Your task to perform on an android device: Show the shopping cart on costco. Add "bose soundlink mini" to the cart on costco Image 0: 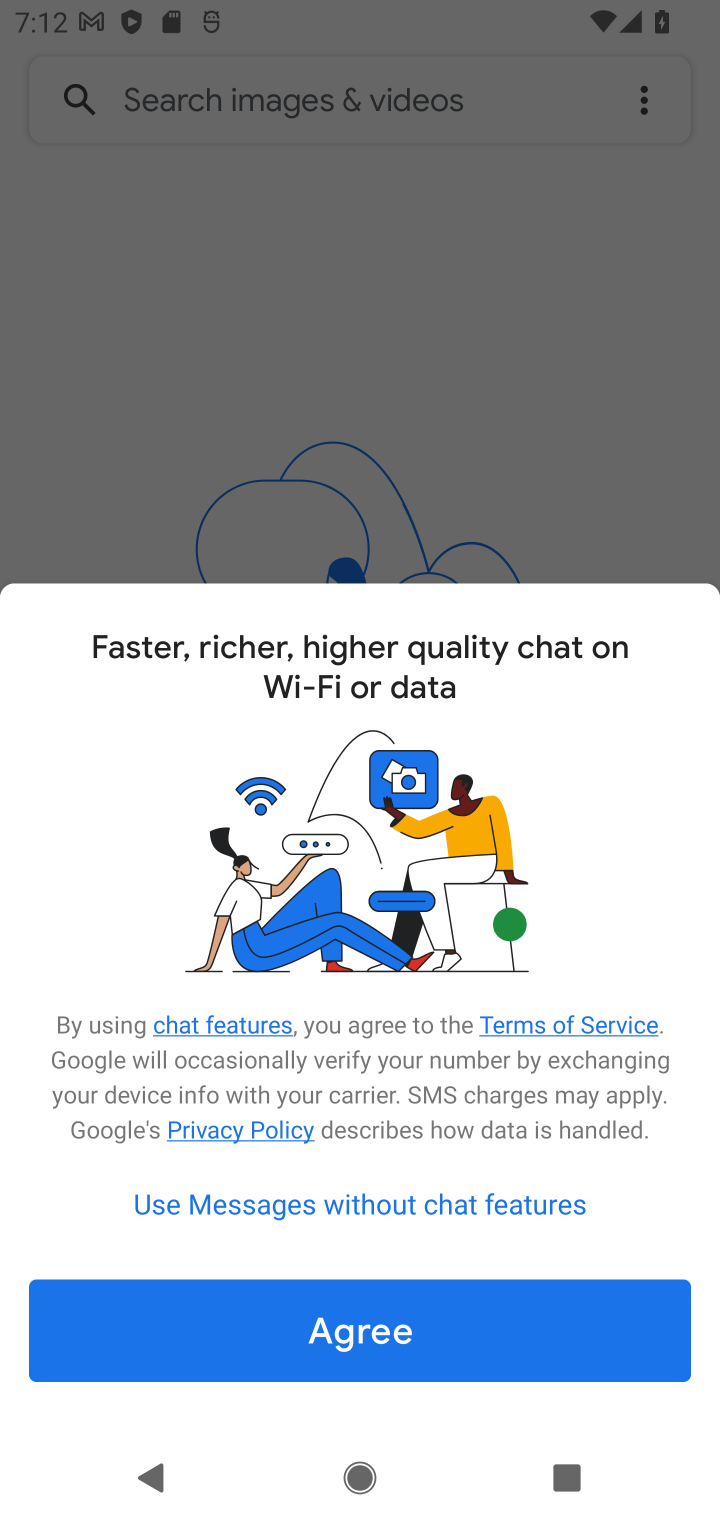
Step 0: press home button
Your task to perform on an android device: Show the shopping cart on costco. Add "bose soundlink mini" to the cart on costco Image 1: 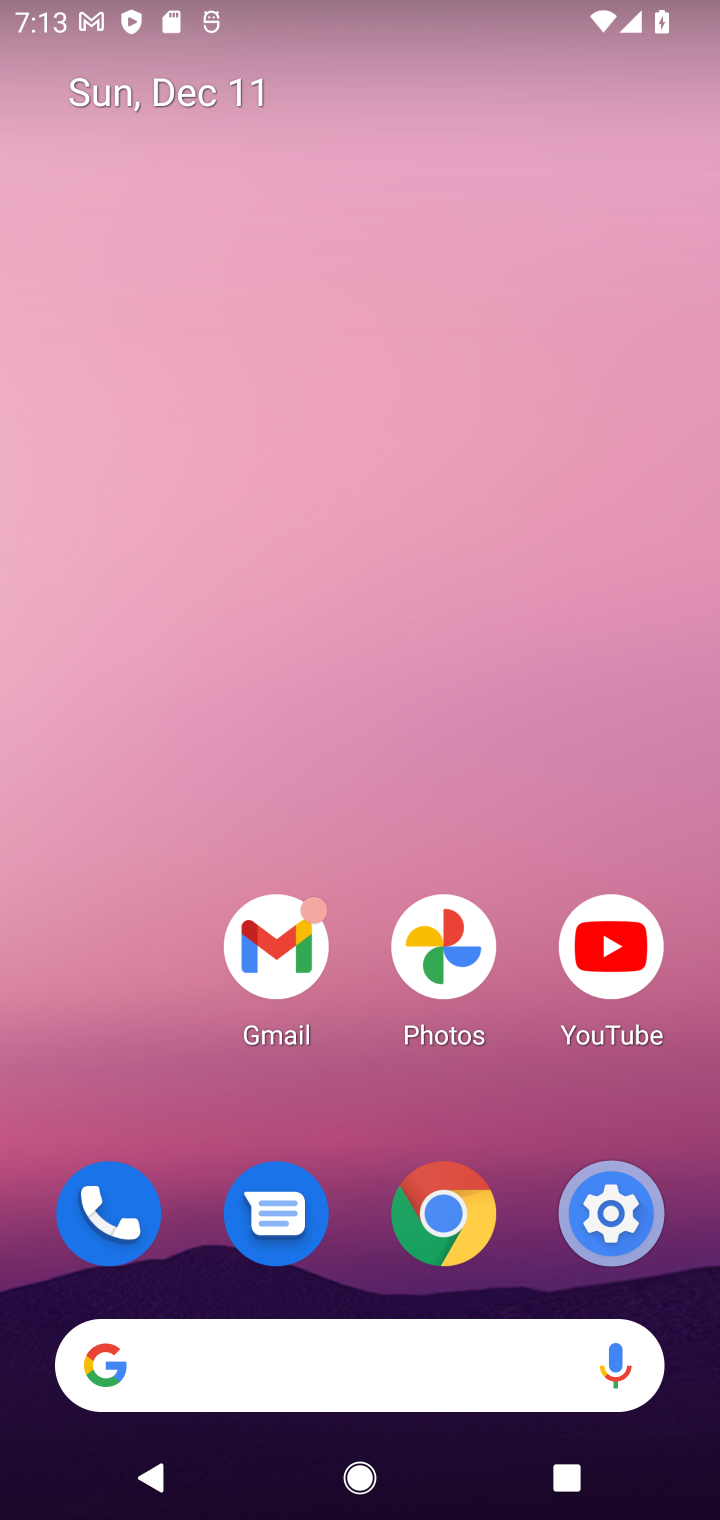
Step 1: click (436, 1348)
Your task to perform on an android device: Show the shopping cart on costco. Add "bose soundlink mini" to the cart on costco Image 2: 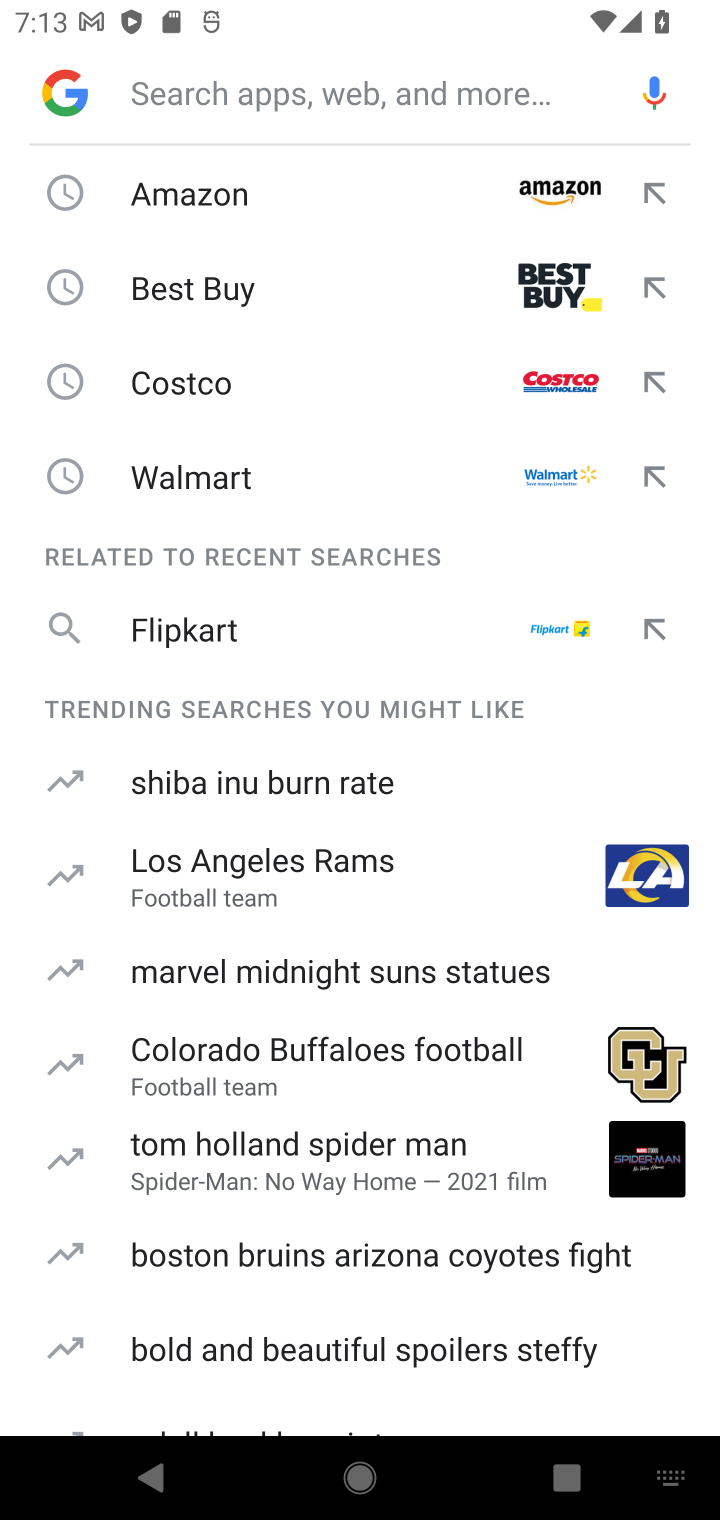
Step 2: click (284, 389)
Your task to perform on an android device: Show the shopping cart on costco. Add "bose soundlink mini" to the cart on costco Image 3: 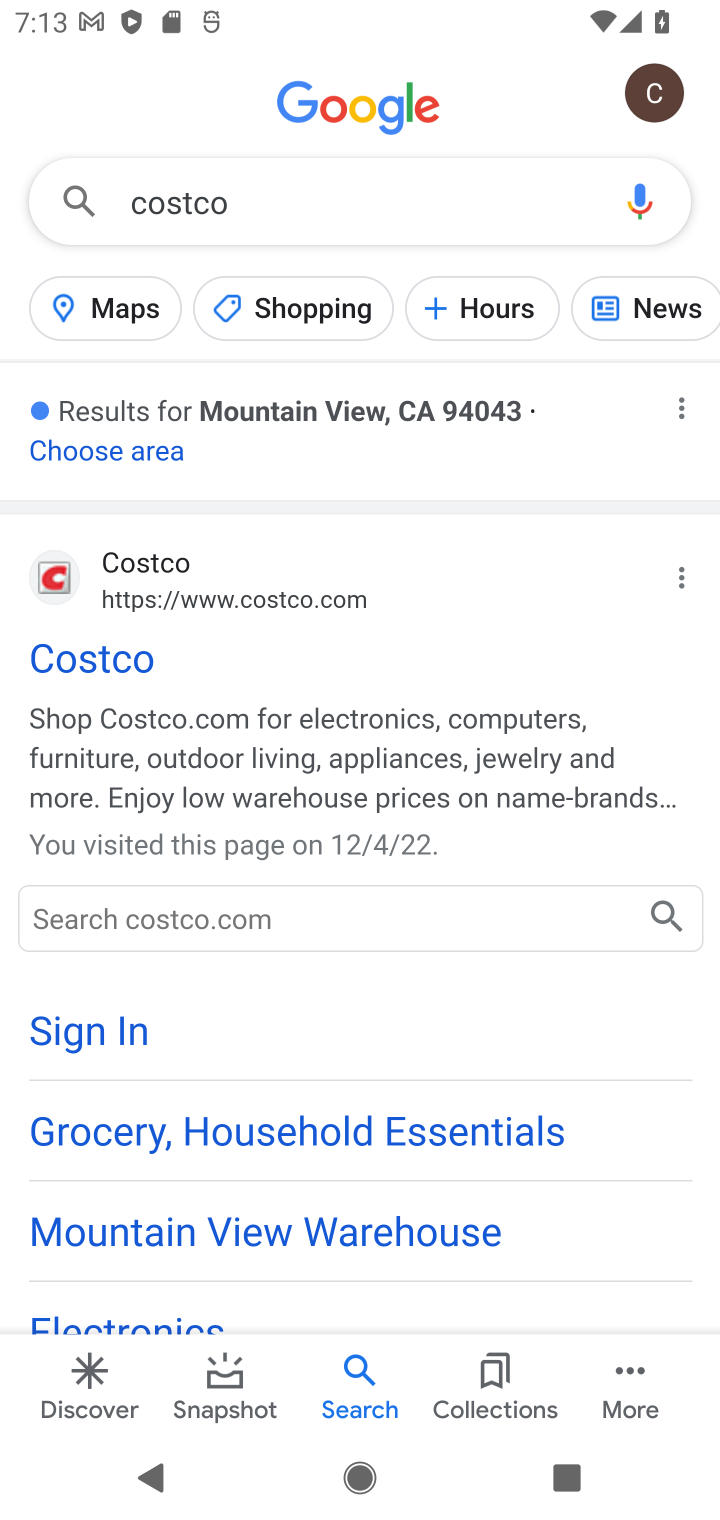
Step 3: click (95, 690)
Your task to perform on an android device: Show the shopping cart on costco. Add "bose soundlink mini" to the cart on costco Image 4: 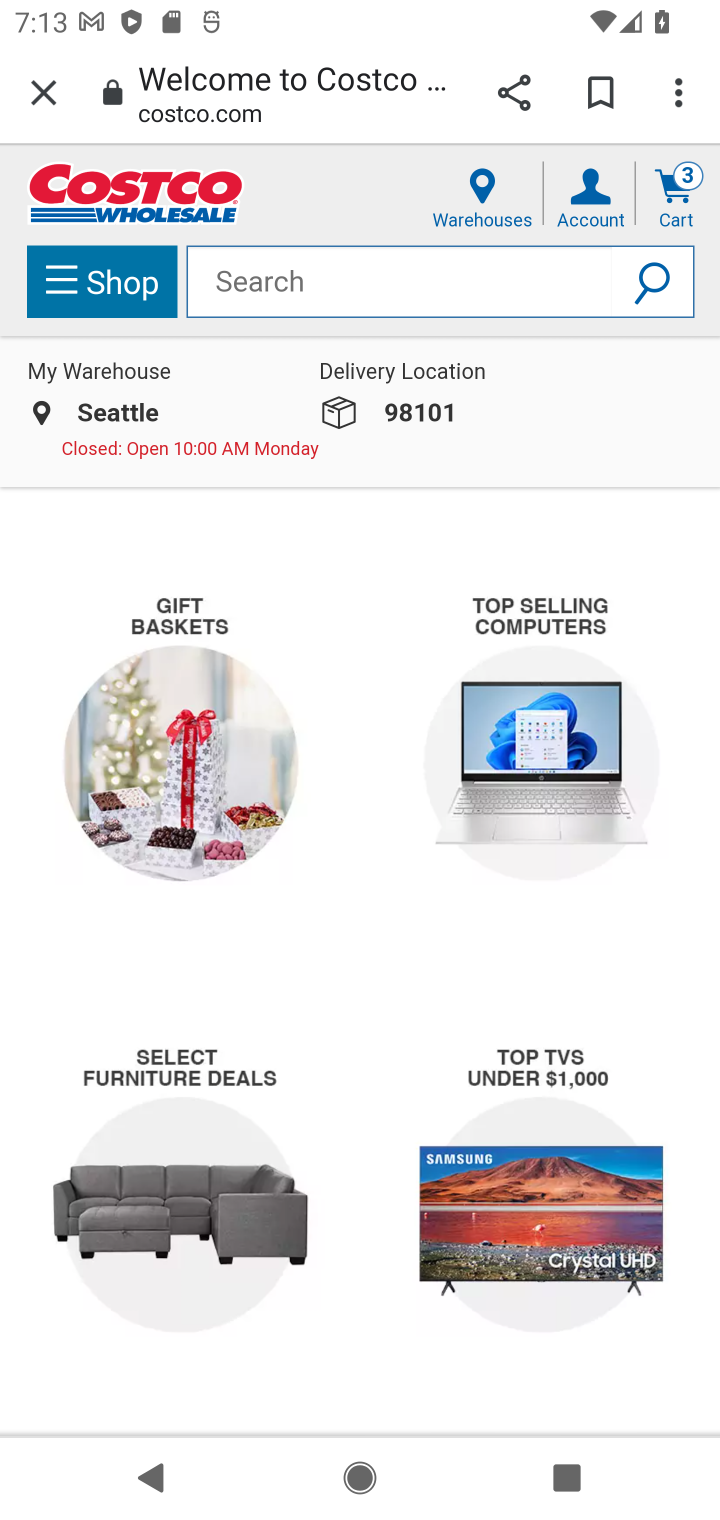
Step 4: click (369, 283)
Your task to perform on an android device: Show the shopping cart on costco. Add "bose soundlink mini" to the cart on costco Image 5: 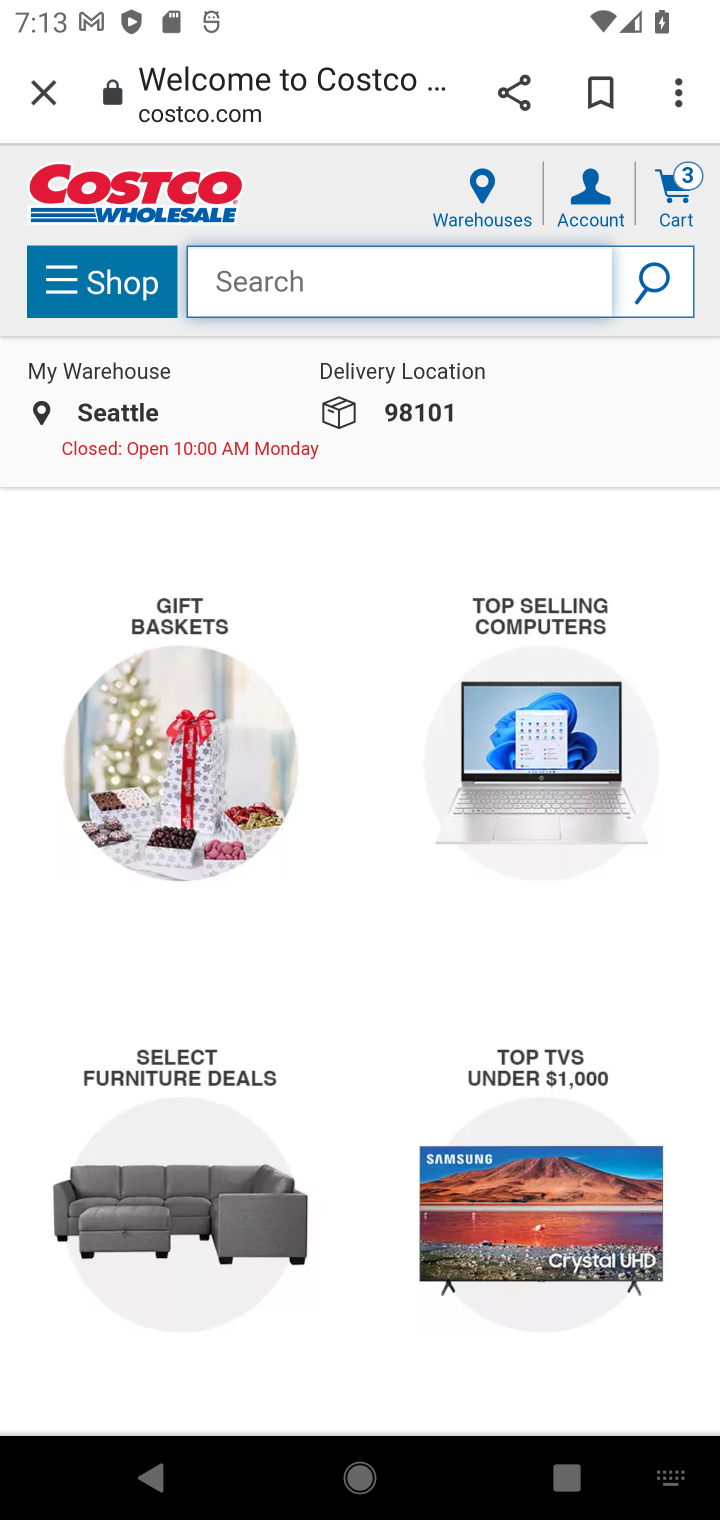
Step 5: type "bose soundlink"
Your task to perform on an android device: Show the shopping cart on costco. Add "bose soundlink mini" to the cart on costco Image 6: 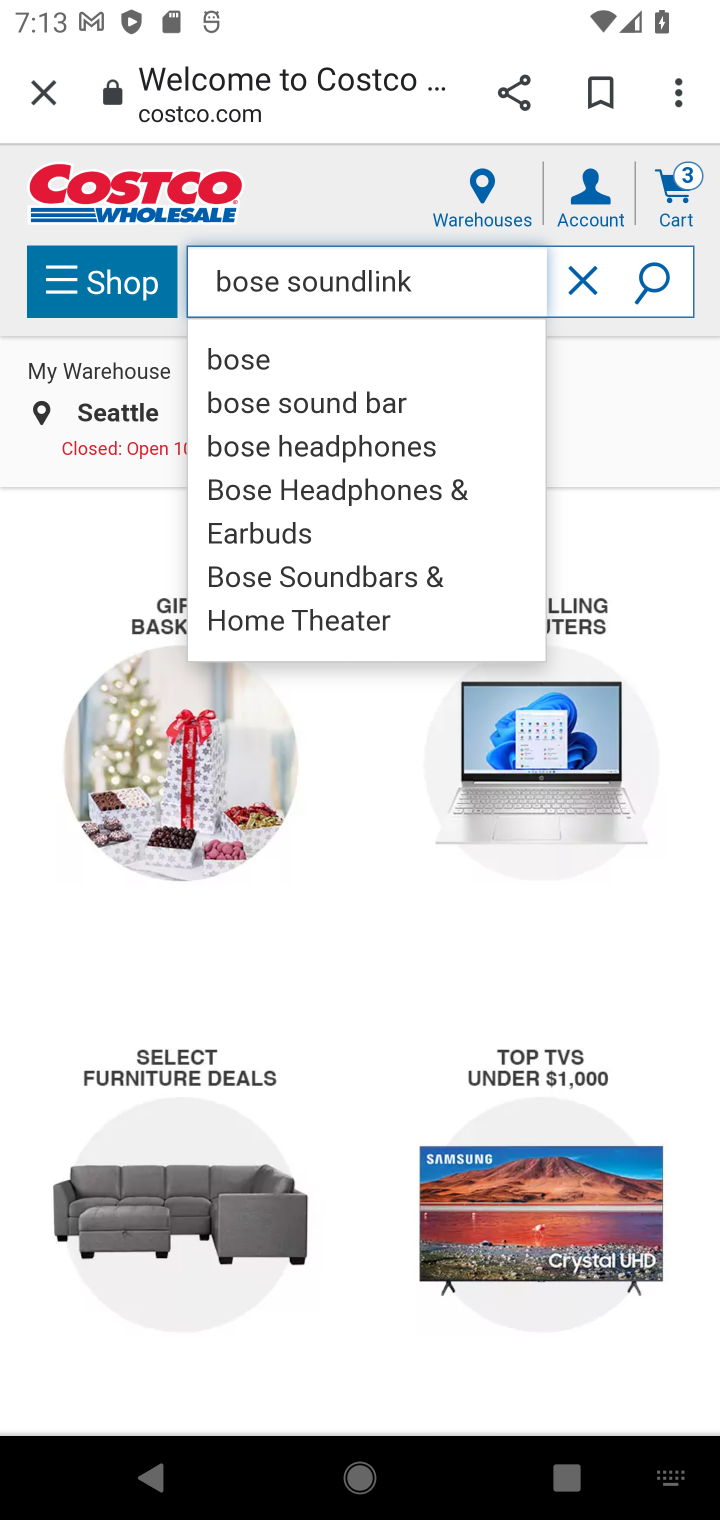
Step 6: click (656, 289)
Your task to perform on an android device: Show the shopping cart on costco. Add "bose soundlink mini" to the cart on costco Image 7: 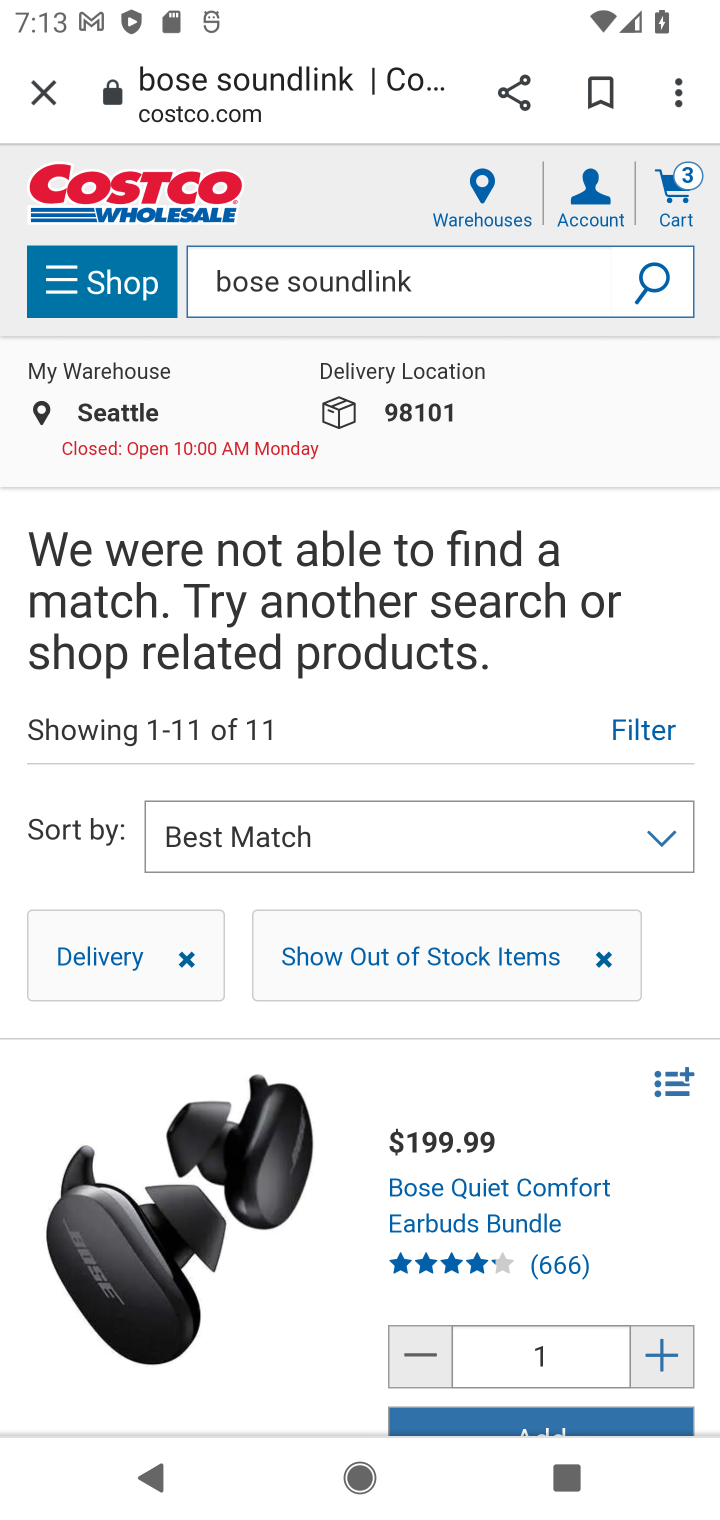
Step 7: click (628, 1423)
Your task to perform on an android device: Show the shopping cart on costco. Add "bose soundlink mini" to the cart on costco Image 8: 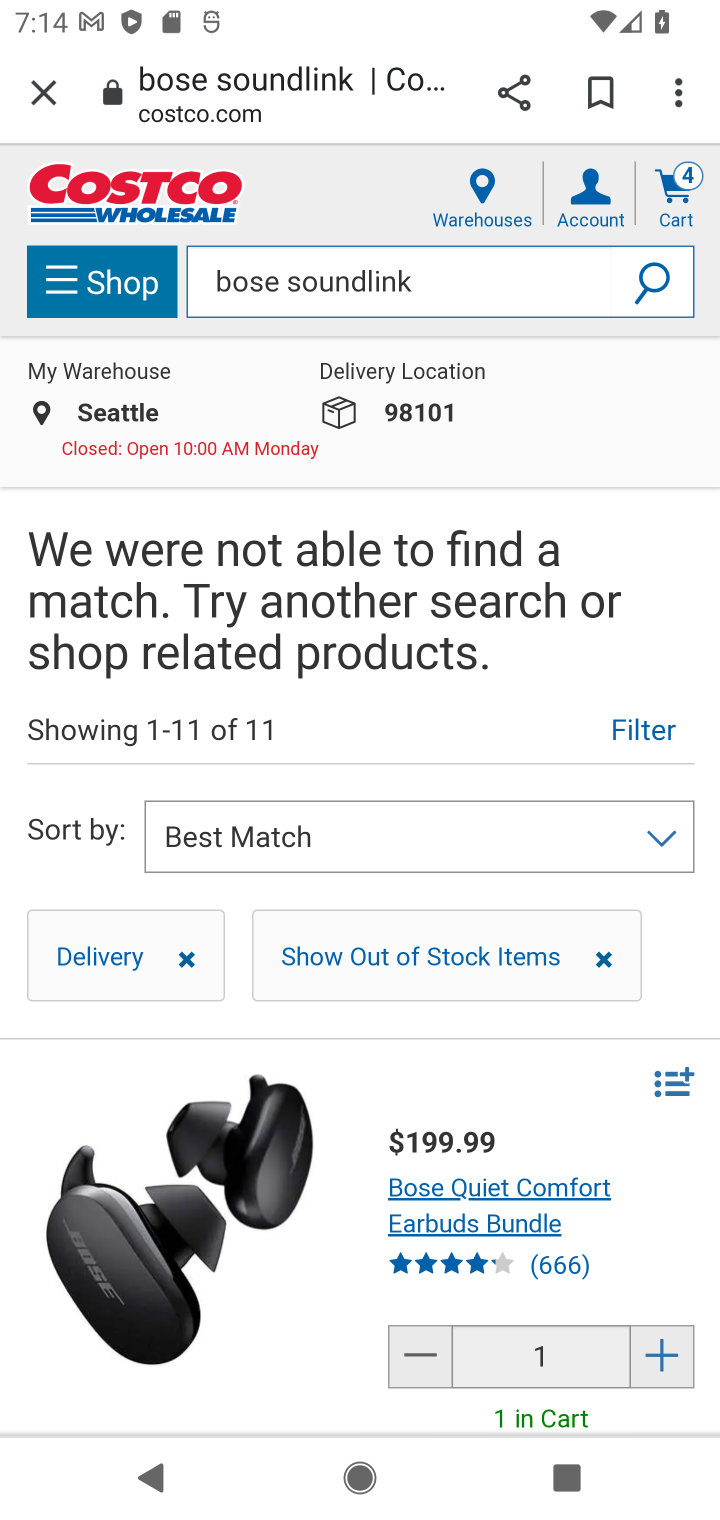
Step 8: task complete